Your task to perform on an android device: all mails in gmail Image 0: 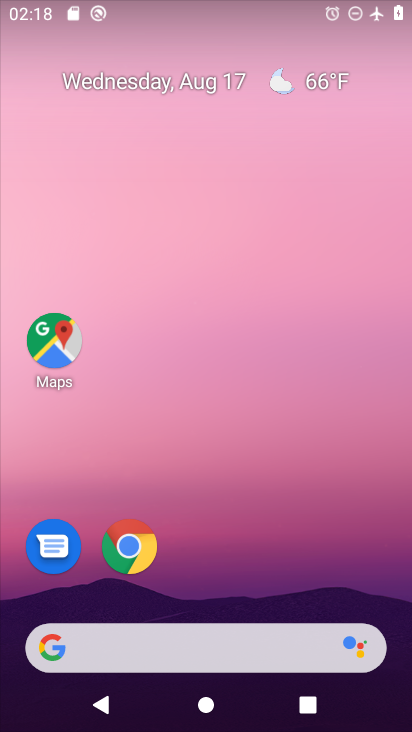
Step 0: drag from (247, 602) to (173, 197)
Your task to perform on an android device: all mails in gmail Image 1: 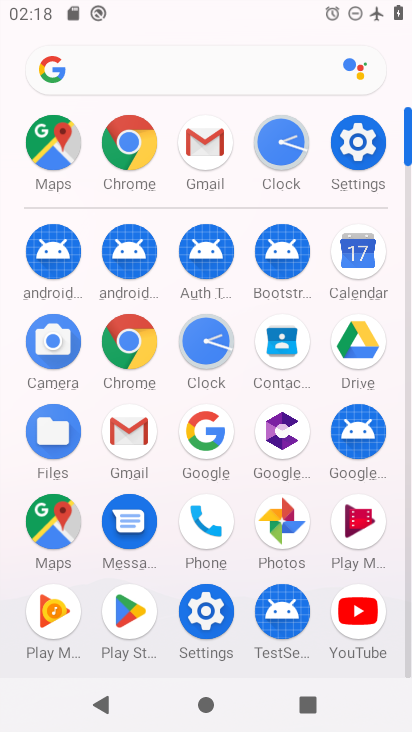
Step 1: click (200, 148)
Your task to perform on an android device: all mails in gmail Image 2: 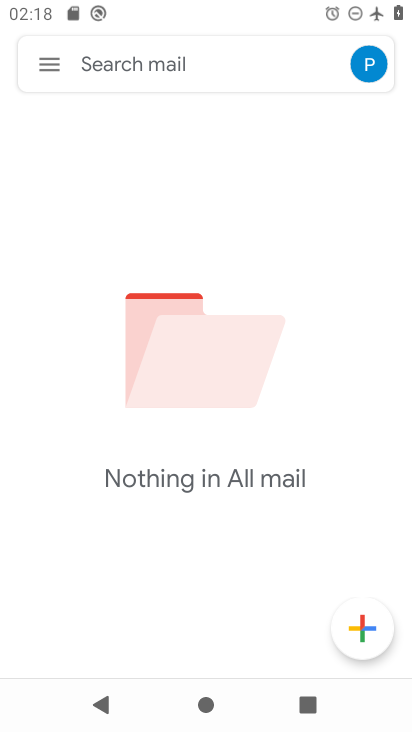
Step 2: click (32, 56)
Your task to perform on an android device: all mails in gmail Image 3: 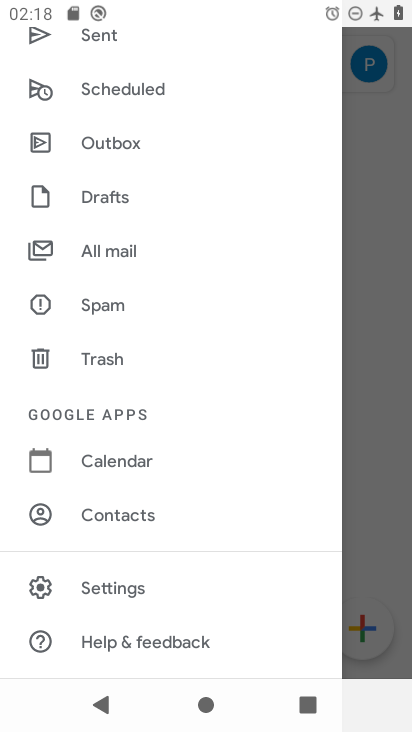
Step 3: click (96, 250)
Your task to perform on an android device: all mails in gmail Image 4: 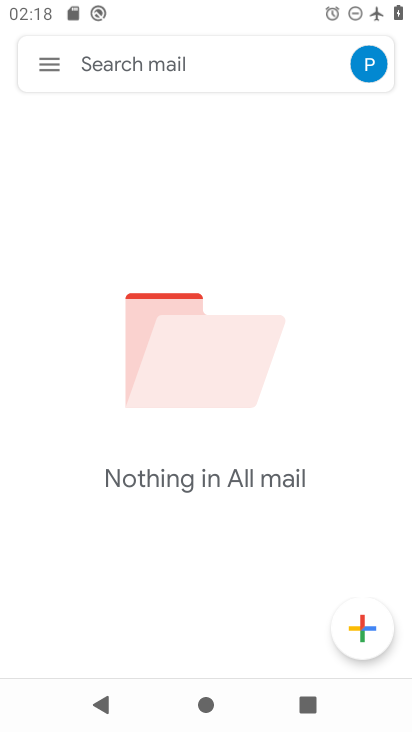
Step 4: task complete